Your task to perform on an android device: Open the map Image 0: 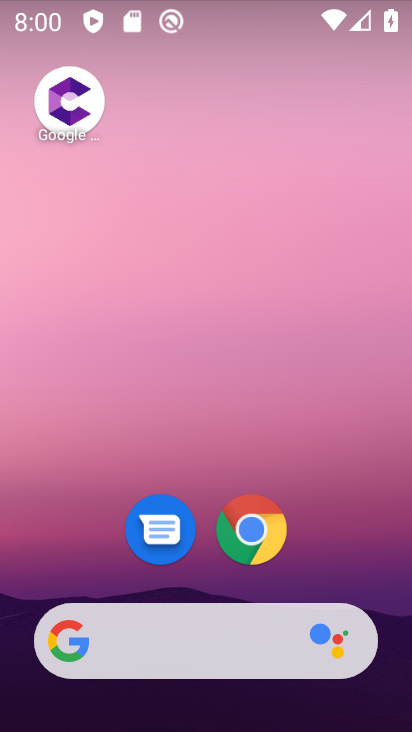
Step 0: drag from (312, 531) to (198, 9)
Your task to perform on an android device: Open the map Image 1: 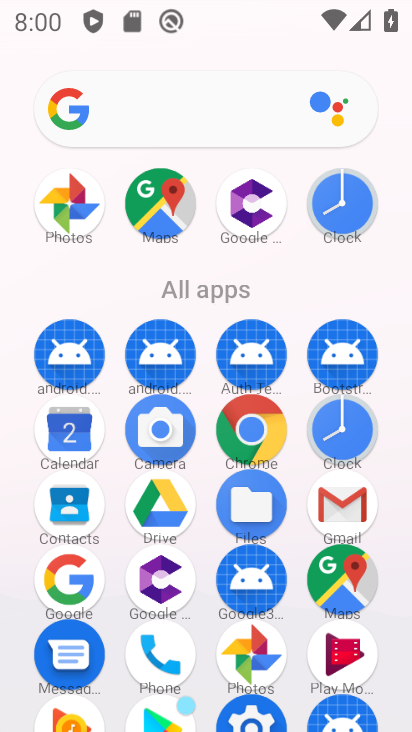
Step 1: click (163, 179)
Your task to perform on an android device: Open the map Image 2: 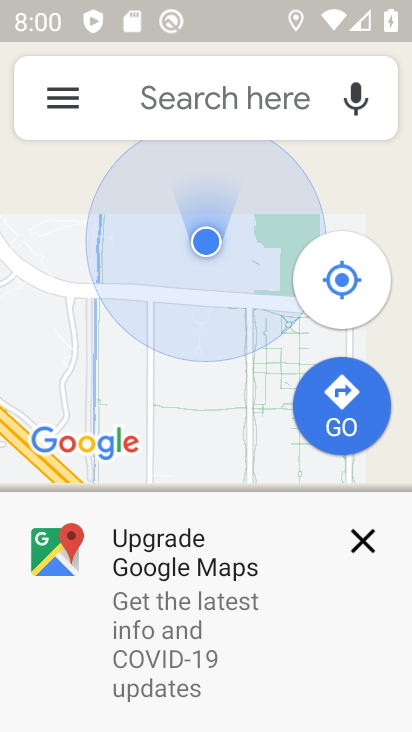
Step 2: task complete